Your task to perform on an android device: check battery use Image 0: 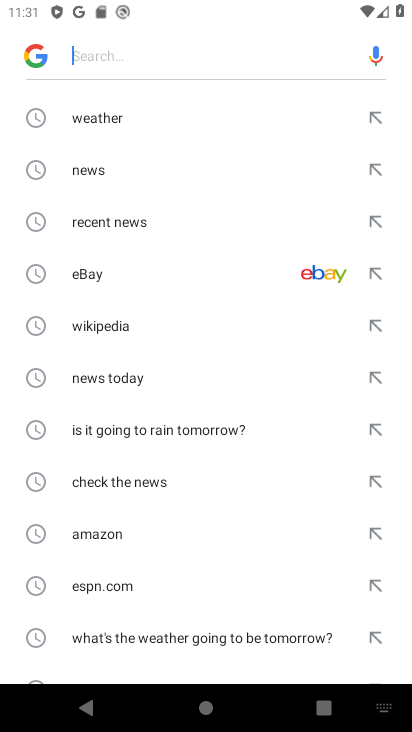
Step 0: press home button
Your task to perform on an android device: check battery use Image 1: 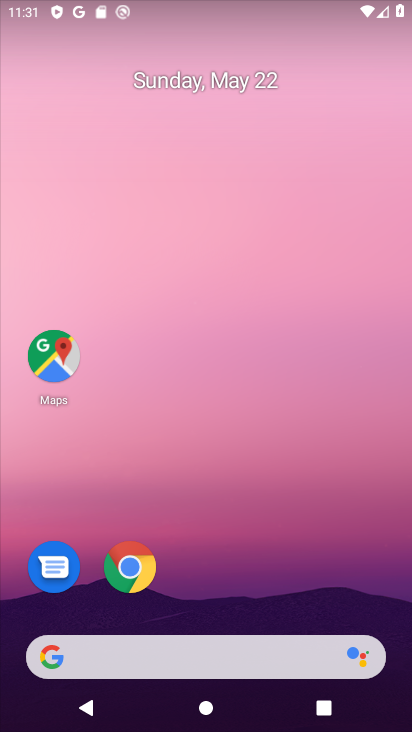
Step 1: drag from (197, 614) to (214, 57)
Your task to perform on an android device: check battery use Image 2: 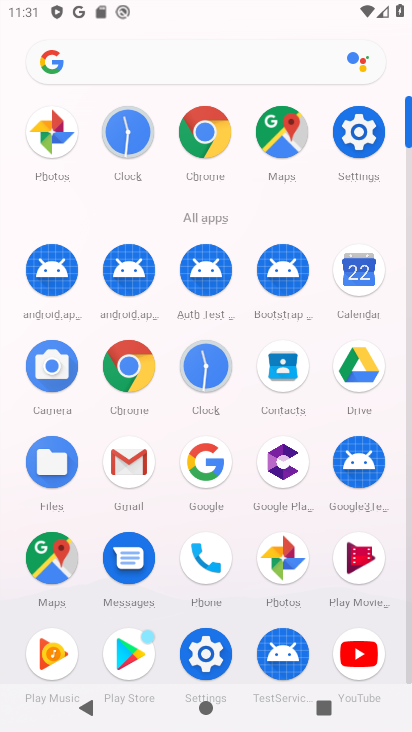
Step 2: click (344, 148)
Your task to perform on an android device: check battery use Image 3: 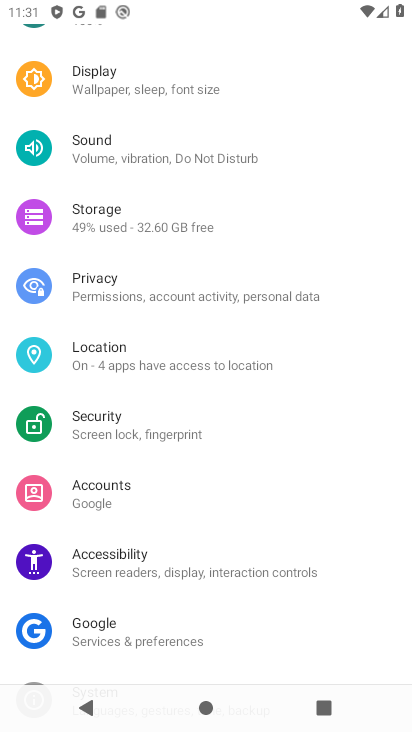
Step 3: drag from (272, 179) to (187, 590)
Your task to perform on an android device: check battery use Image 4: 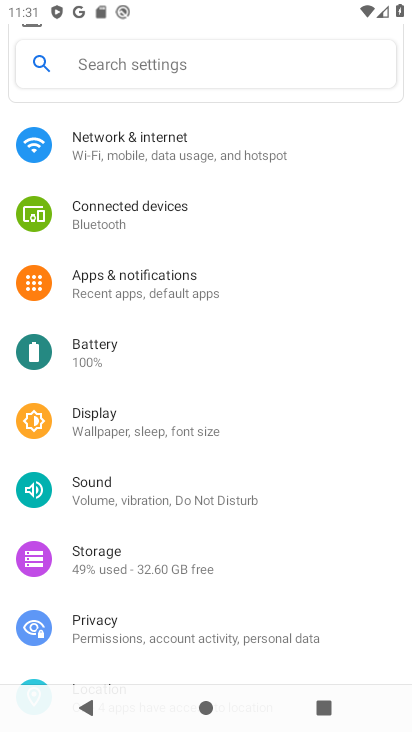
Step 4: click (100, 353)
Your task to perform on an android device: check battery use Image 5: 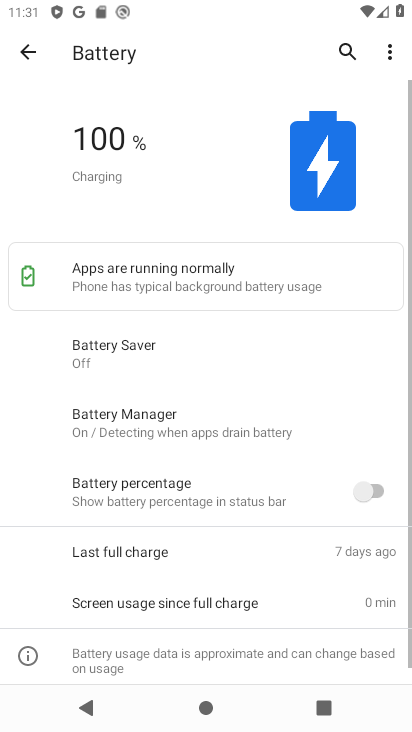
Step 5: click (100, 353)
Your task to perform on an android device: check battery use Image 6: 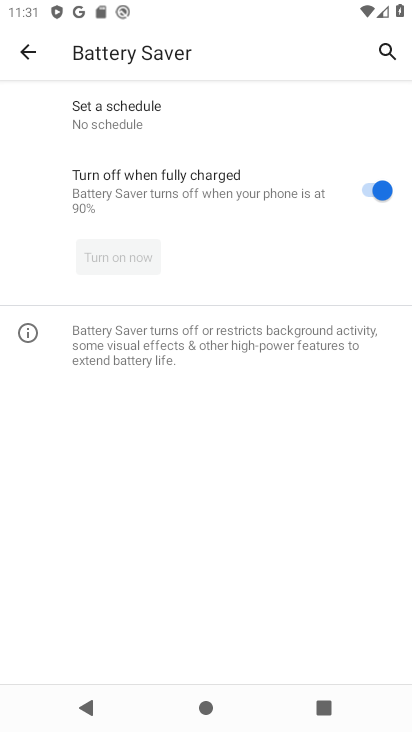
Step 6: click (23, 61)
Your task to perform on an android device: check battery use Image 7: 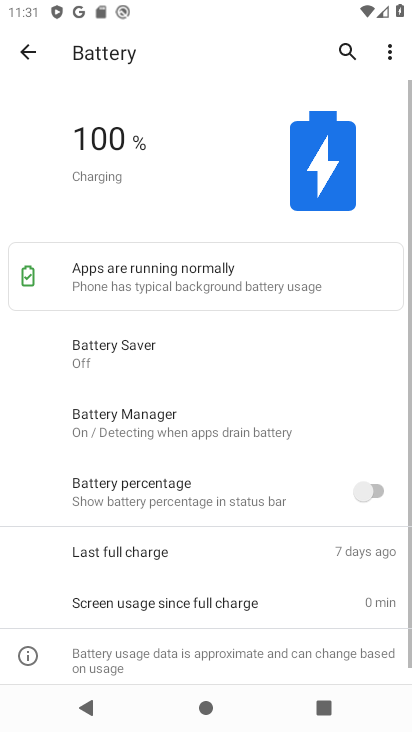
Step 7: click (388, 49)
Your task to perform on an android device: check battery use Image 8: 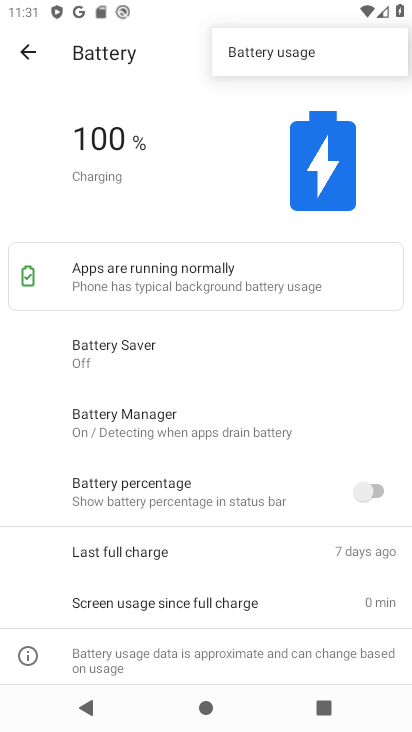
Step 8: click (316, 55)
Your task to perform on an android device: check battery use Image 9: 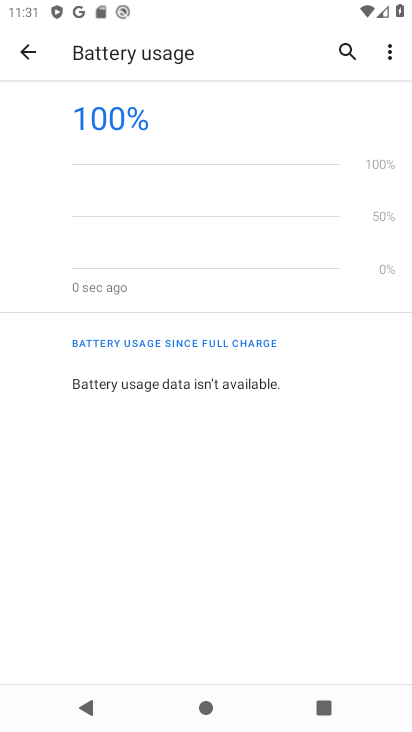
Step 9: task complete